Your task to perform on an android device: Open Reddit.com Image 0: 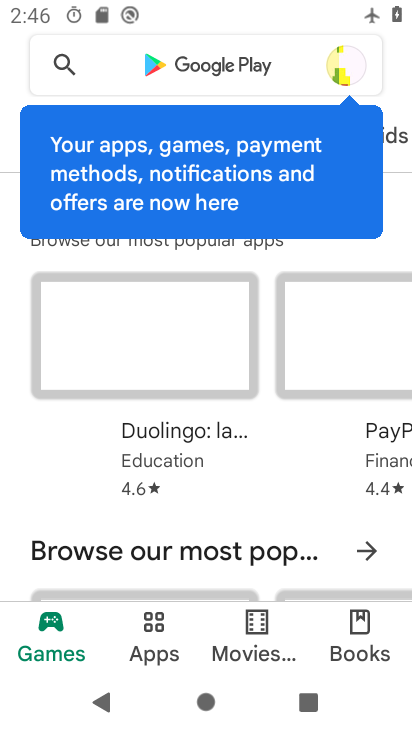
Step 0: press home button
Your task to perform on an android device: Open Reddit.com Image 1: 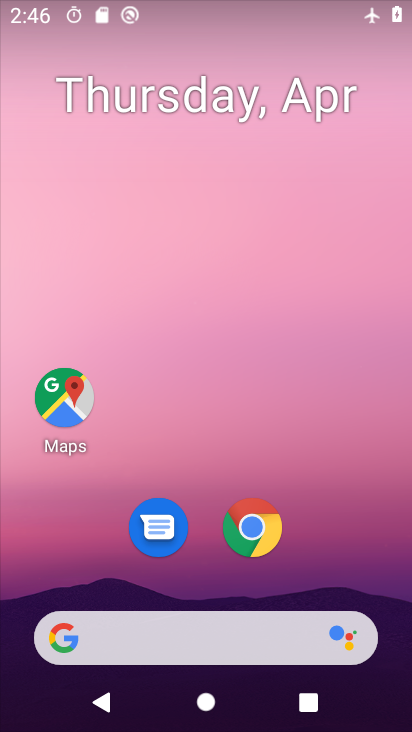
Step 1: click (265, 538)
Your task to perform on an android device: Open Reddit.com Image 2: 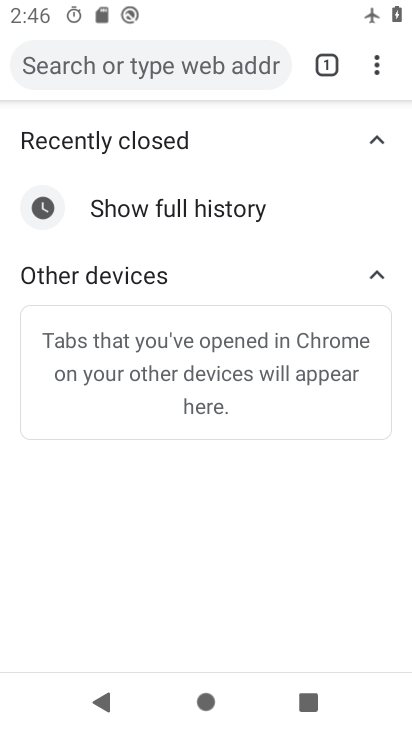
Step 2: click (237, 75)
Your task to perform on an android device: Open Reddit.com Image 3: 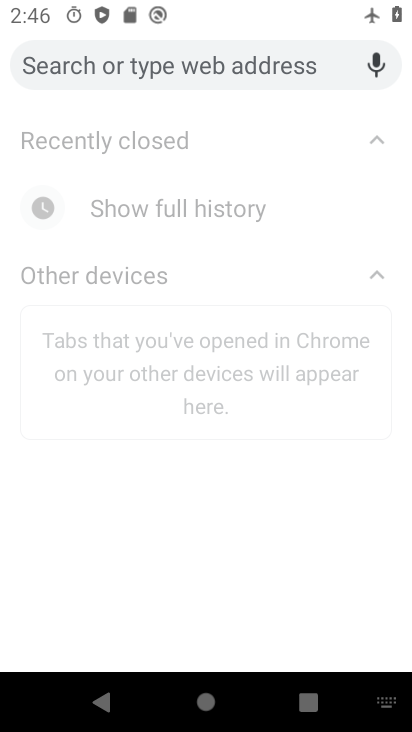
Step 3: type "reddit.com"
Your task to perform on an android device: Open Reddit.com Image 4: 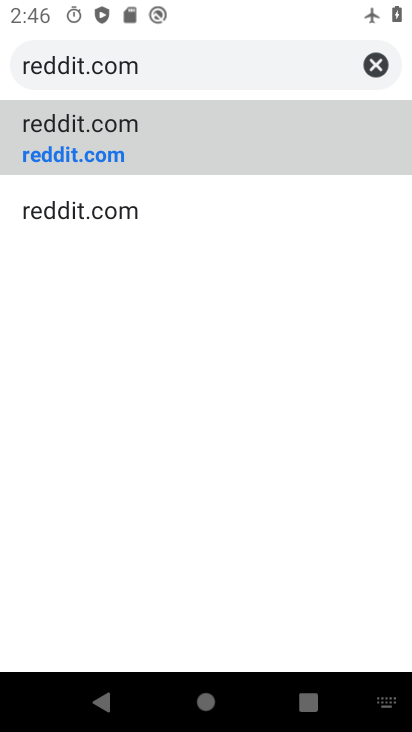
Step 4: click (78, 154)
Your task to perform on an android device: Open Reddit.com Image 5: 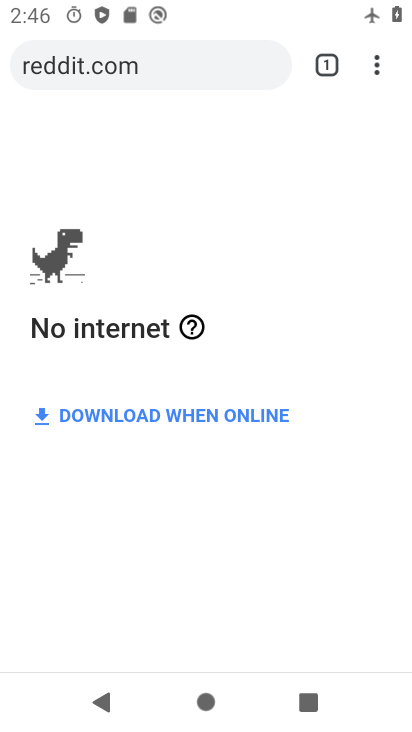
Step 5: task complete